Your task to perform on an android device: turn on priority inbox in the gmail app Image 0: 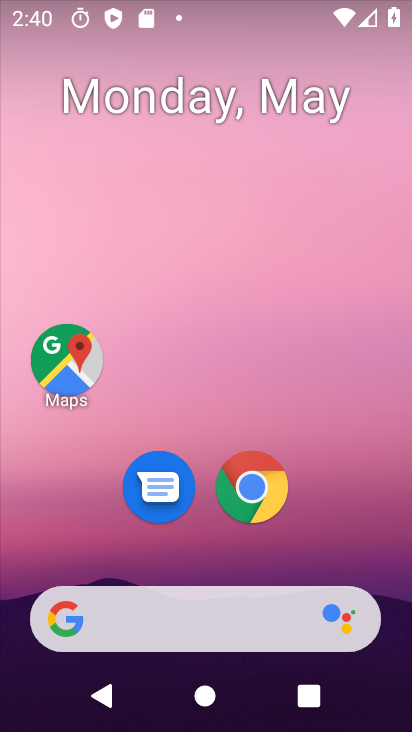
Step 0: drag from (250, 563) to (295, 9)
Your task to perform on an android device: turn on priority inbox in the gmail app Image 1: 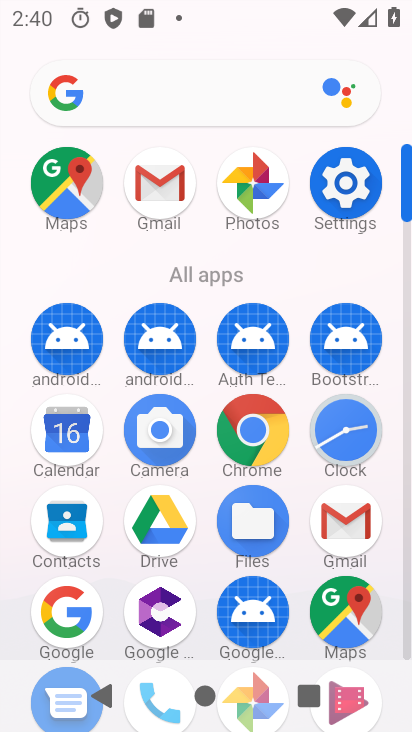
Step 1: click (362, 526)
Your task to perform on an android device: turn on priority inbox in the gmail app Image 2: 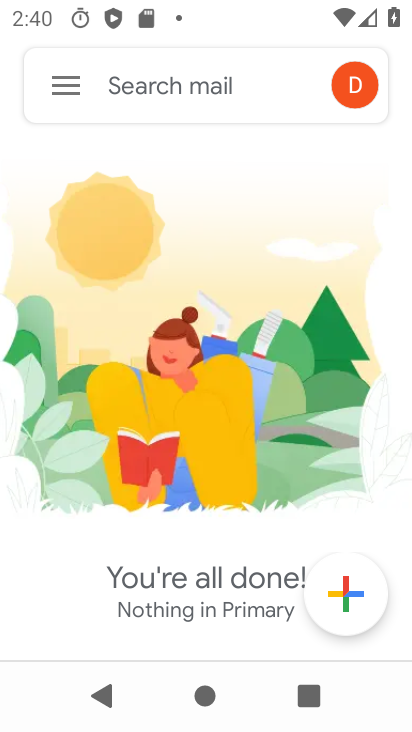
Step 2: click (48, 89)
Your task to perform on an android device: turn on priority inbox in the gmail app Image 3: 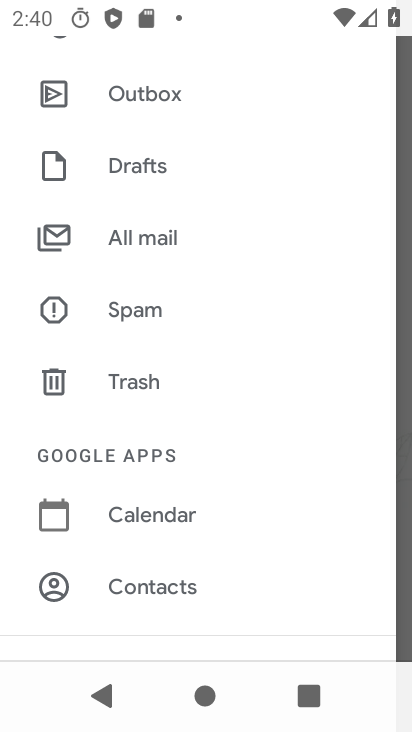
Step 3: drag from (166, 589) to (250, 110)
Your task to perform on an android device: turn on priority inbox in the gmail app Image 4: 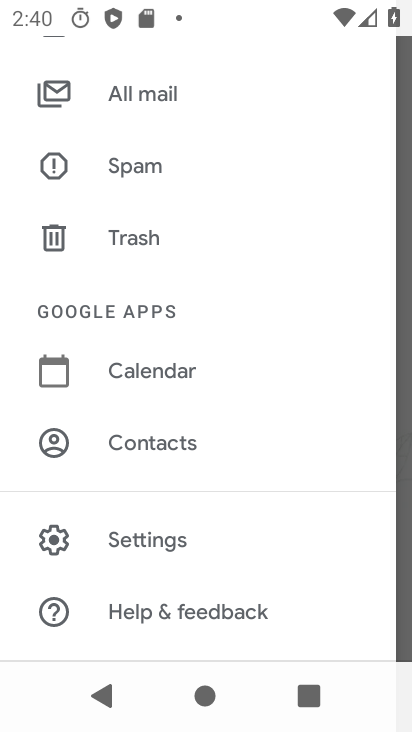
Step 4: click (154, 545)
Your task to perform on an android device: turn on priority inbox in the gmail app Image 5: 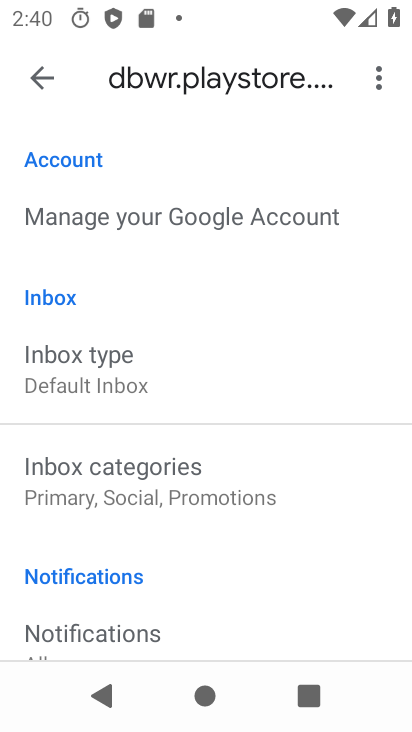
Step 5: click (130, 380)
Your task to perform on an android device: turn on priority inbox in the gmail app Image 6: 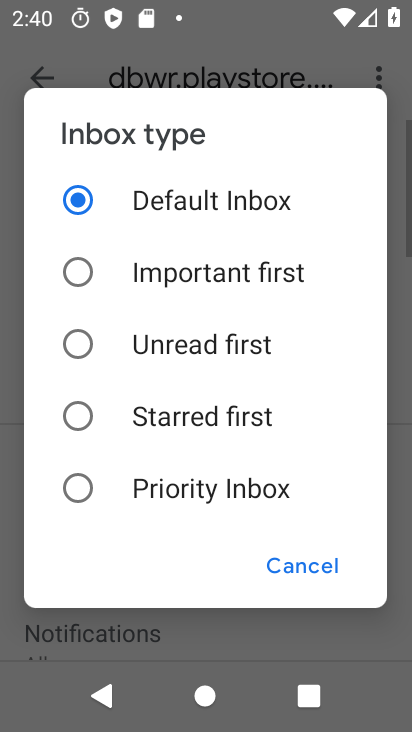
Step 6: click (85, 498)
Your task to perform on an android device: turn on priority inbox in the gmail app Image 7: 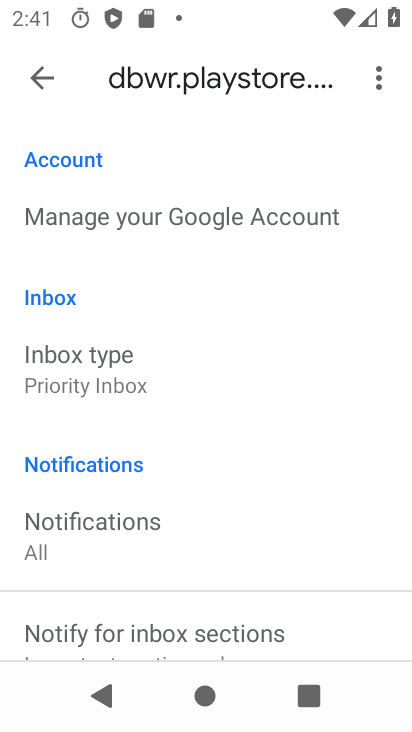
Step 7: task complete